Your task to perform on an android device: Open ESPN.com Image 0: 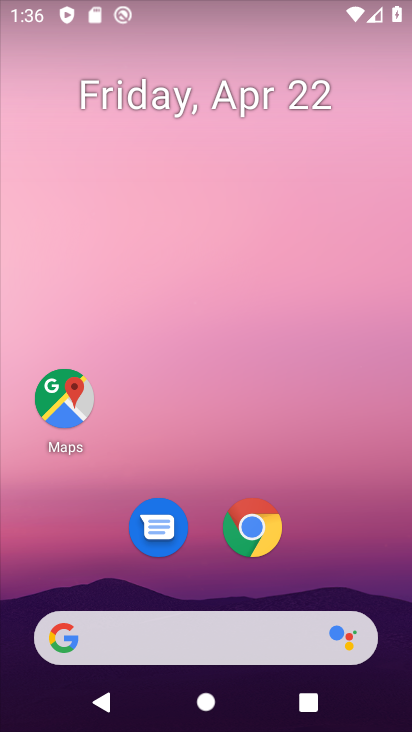
Step 0: drag from (325, 549) to (238, 54)
Your task to perform on an android device: Open ESPN.com Image 1: 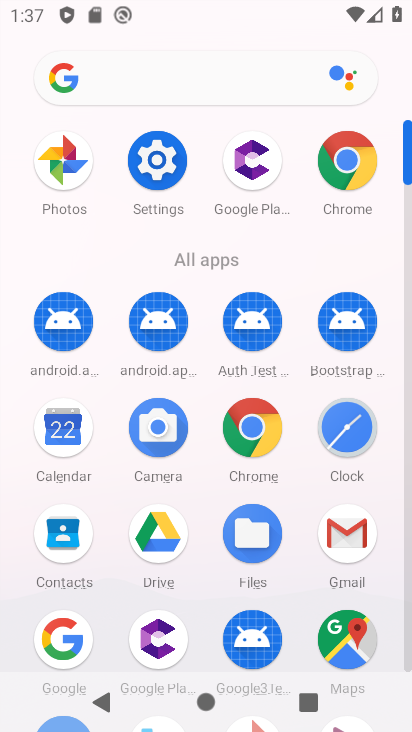
Step 1: click (257, 429)
Your task to perform on an android device: Open ESPN.com Image 2: 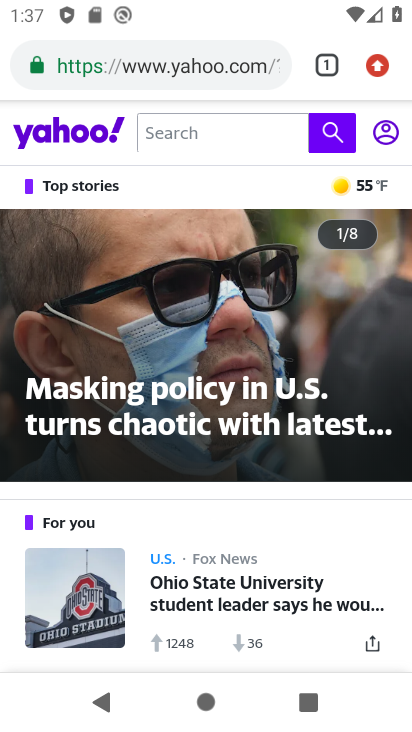
Step 2: press back button
Your task to perform on an android device: Open ESPN.com Image 3: 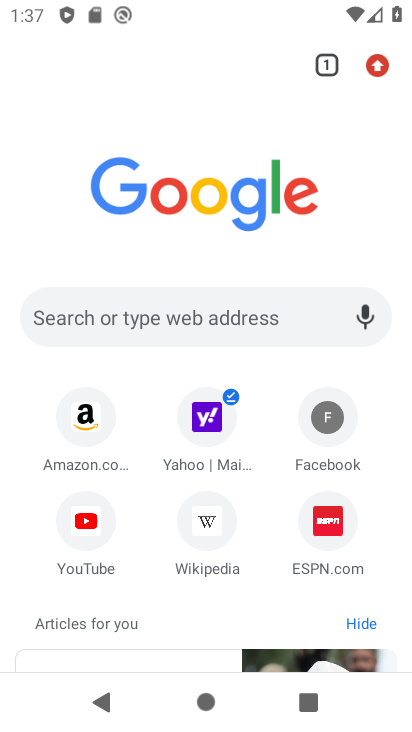
Step 3: click (332, 529)
Your task to perform on an android device: Open ESPN.com Image 4: 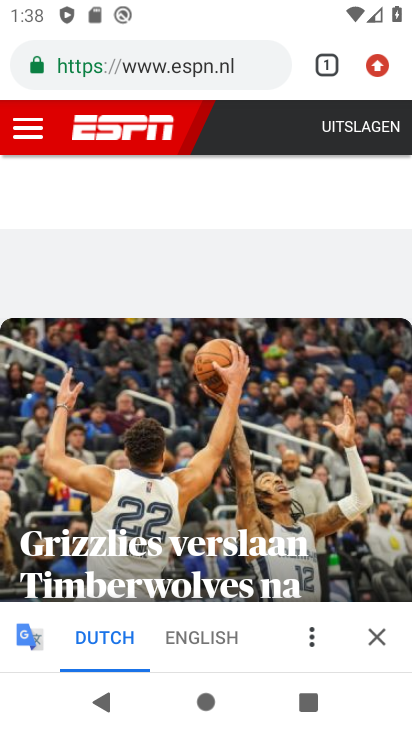
Step 4: task complete